Your task to perform on an android device: What's the weather going to be tomorrow? Image 0: 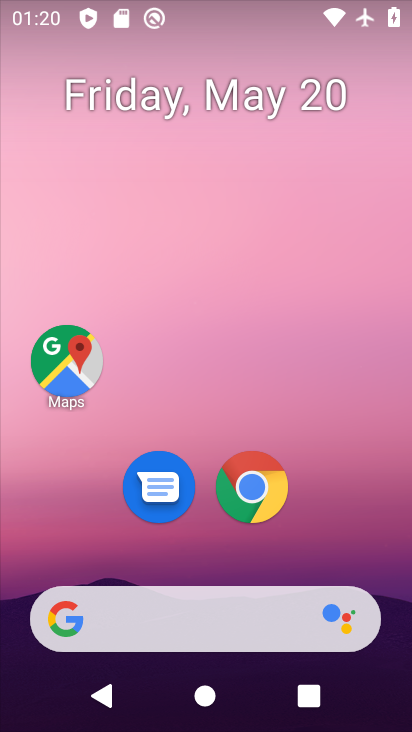
Step 0: drag from (373, 543) to (258, 28)
Your task to perform on an android device: What's the weather going to be tomorrow? Image 1: 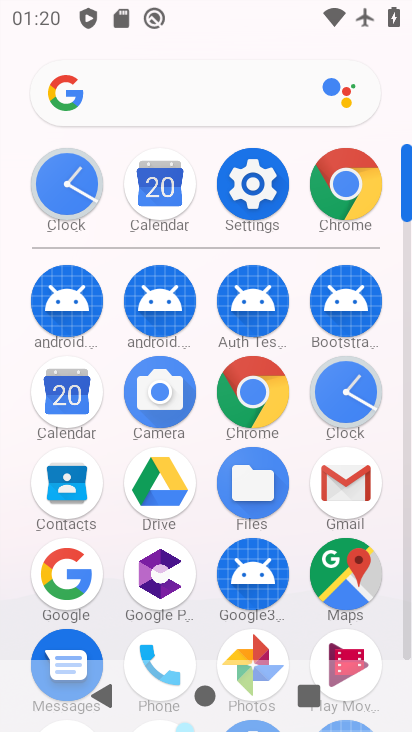
Step 1: drag from (24, 605) to (3, 222)
Your task to perform on an android device: What's the weather going to be tomorrow? Image 2: 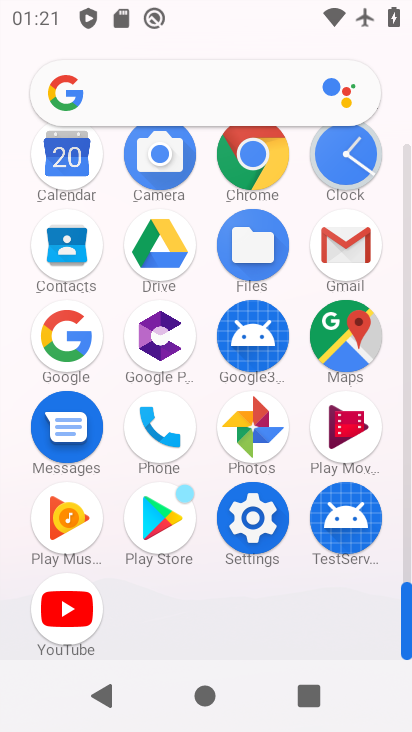
Step 2: drag from (10, 569) to (14, 253)
Your task to perform on an android device: What's the weather going to be tomorrow? Image 3: 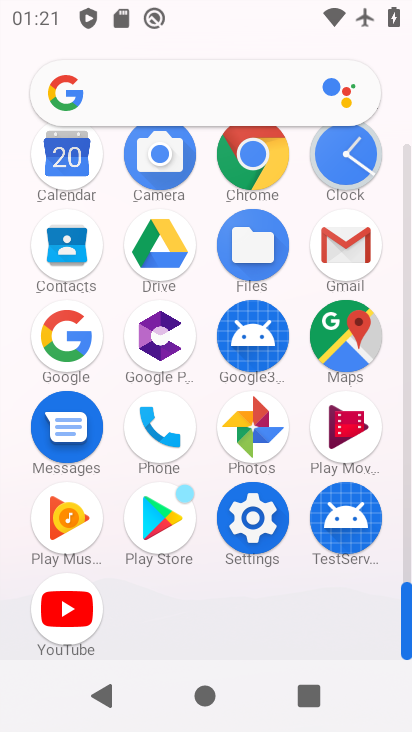
Step 3: click (249, 156)
Your task to perform on an android device: What's the weather going to be tomorrow? Image 4: 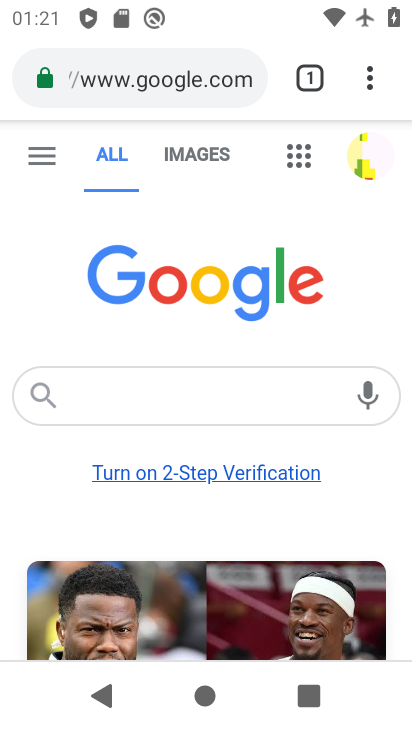
Step 4: click (194, 77)
Your task to perform on an android device: What's the weather going to be tomorrow? Image 5: 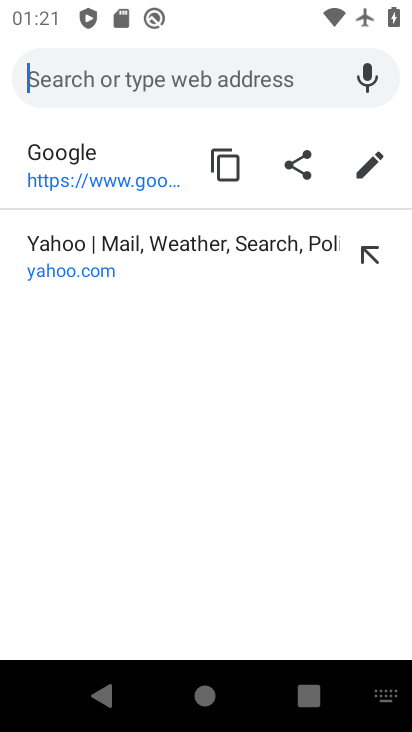
Step 5: type "What's the weather going to be tomorrow?"
Your task to perform on an android device: What's the weather going to be tomorrow? Image 6: 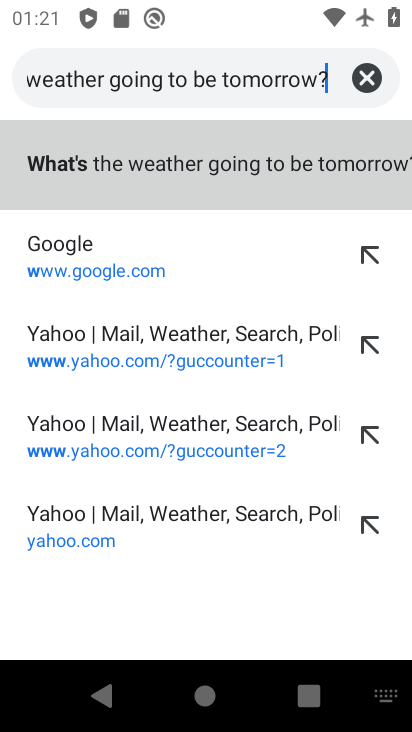
Step 6: type ""
Your task to perform on an android device: What's the weather going to be tomorrow? Image 7: 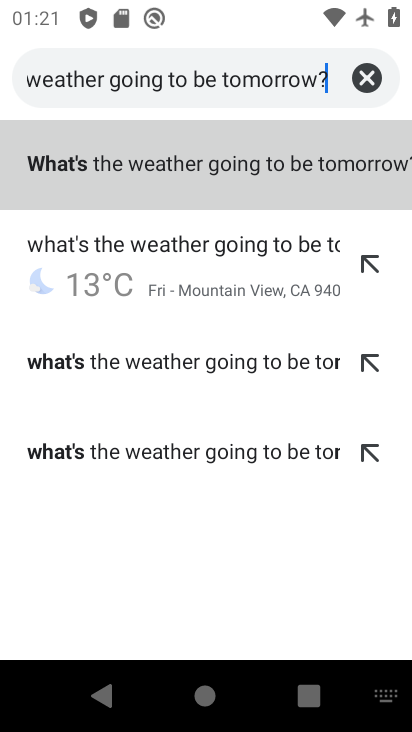
Step 7: click (169, 168)
Your task to perform on an android device: What's the weather going to be tomorrow? Image 8: 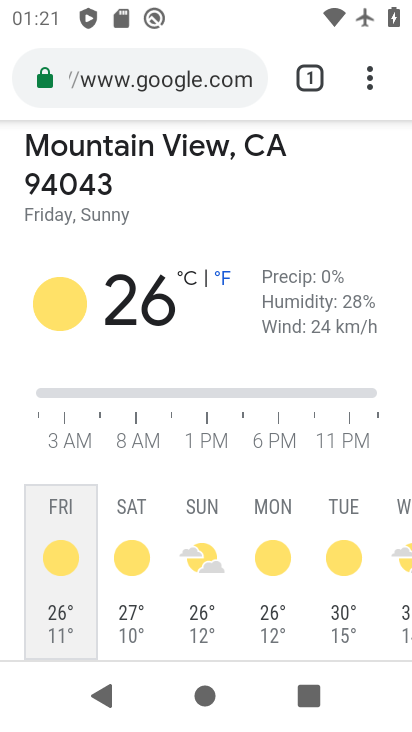
Step 8: task complete